Your task to perform on an android device: Go to Yahoo.com Image 0: 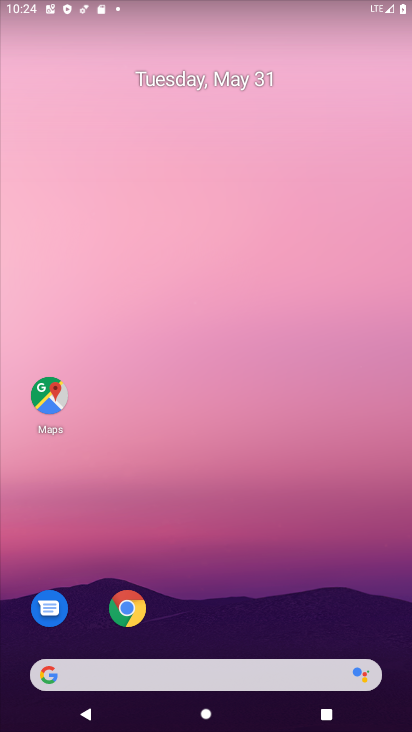
Step 0: click (144, 602)
Your task to perform on an android device: Go to Yahoo.com Image 1: 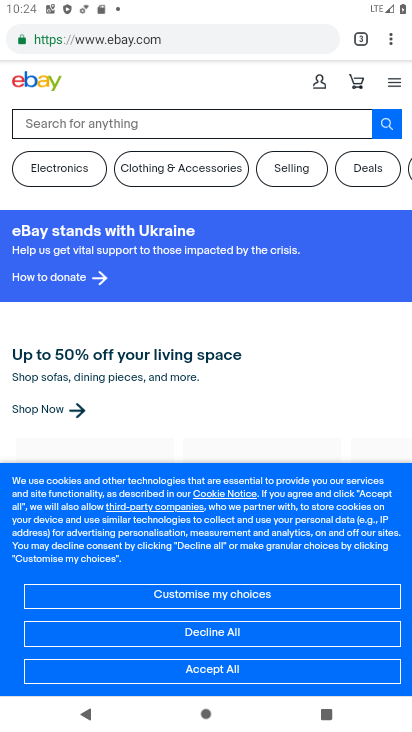
Step 1: click (354, 34)
Your task to perform on an android device: Go to Yahoo.com Image 2: 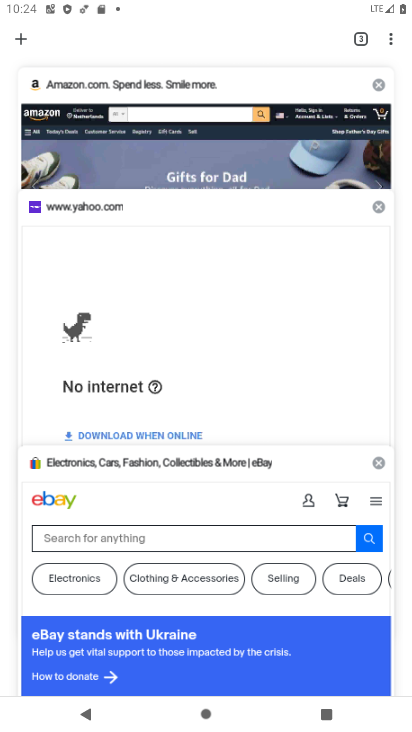
Step 2: click (13, 37)
Your task to perform on an android device: Go to Yahoo.com Image 3: 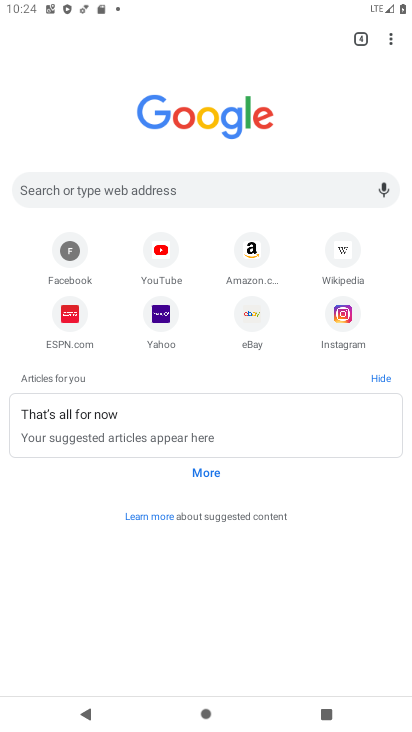
Step 3: click (168, 303)
Your task to perform on an android device: Go to Yahoo.com Image 4: 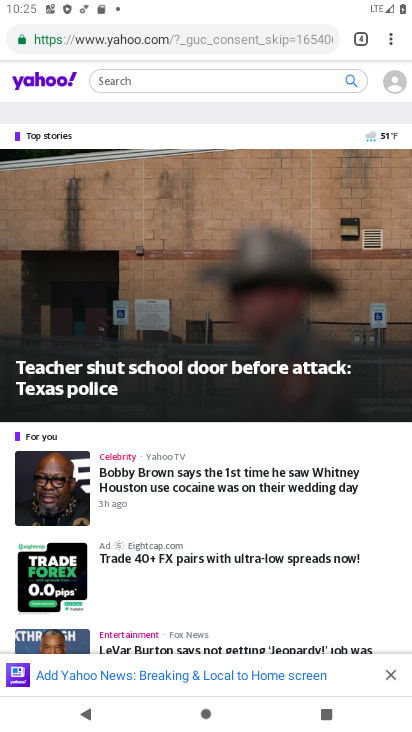
Step 4: task complete